Your task to perform on an android device: Open Amazon Image 0: 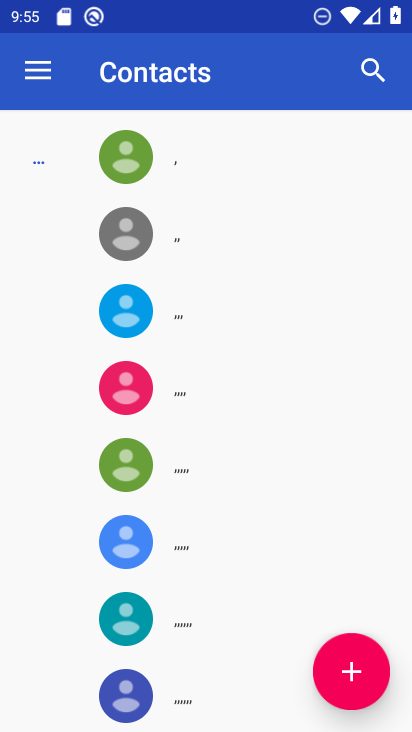
Step 0: press home button
Your task to perform on an android device: Open Amazon Image 1: 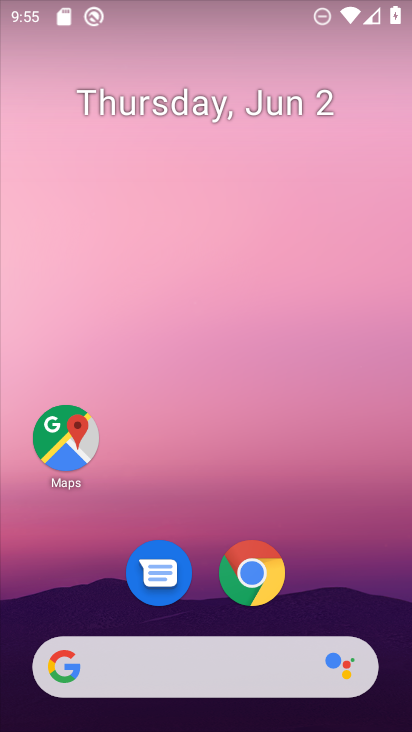
Step 1: click (246, 569)
Your task to perform on an android device: Open Amazon Image 2: 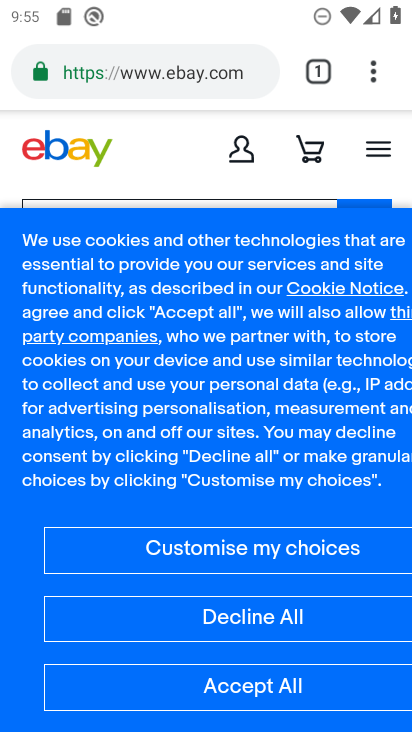
Step 2: click (228, 72)
Your task to perform on an android device: Open Amazon Image 3: 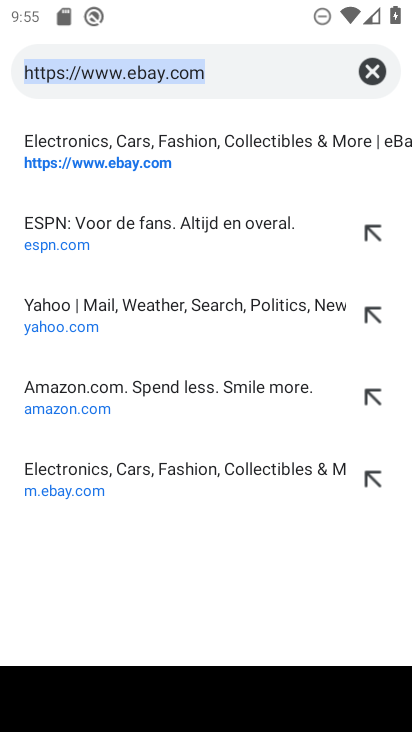
Step 3: click (74, 406)
Your task to perform on an android device: Open Amazon Image 4: 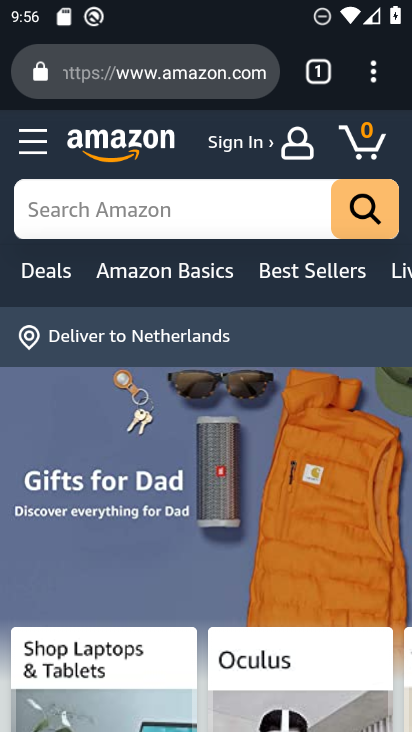
Step 4: task complete